Your task to perform on an android device: Show me recent news Image 0: 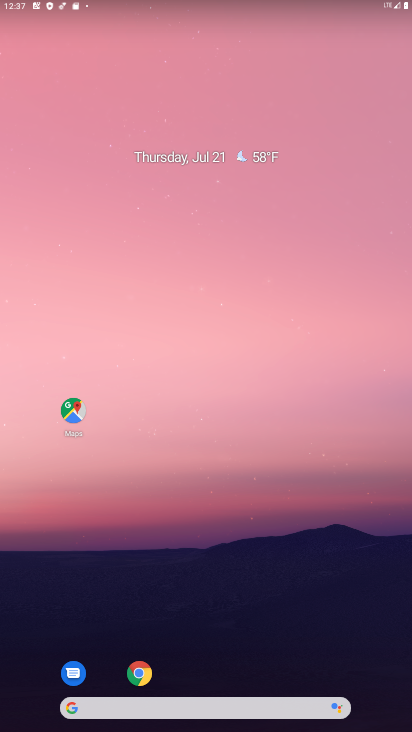
Step 0: drag from (228, 670) to (221, 326)
Your task to perform on an android device: Show me recent news Image 1: 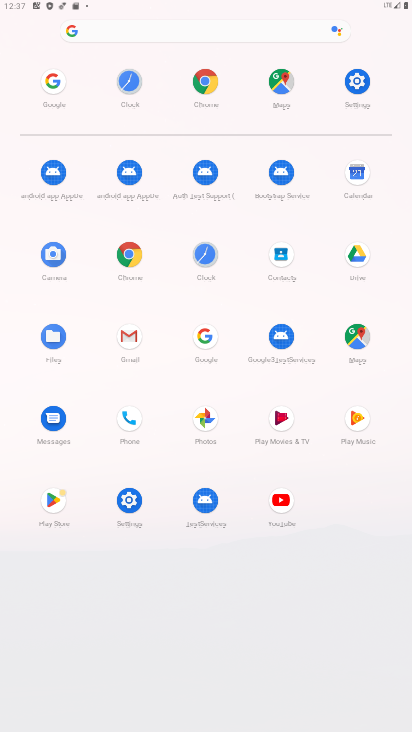
Step 1: click (202, 75)
Your task to perform on an android device: Show me recent news Image 2: 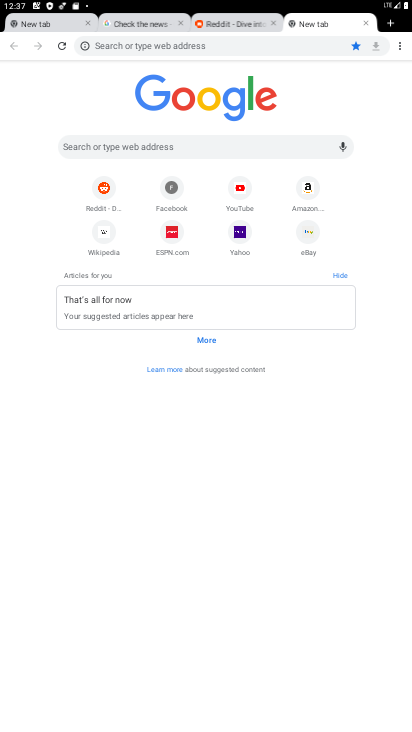
Step 2: click (193, 146)
Your task to perform on an android device: Show me recent news Image 3: 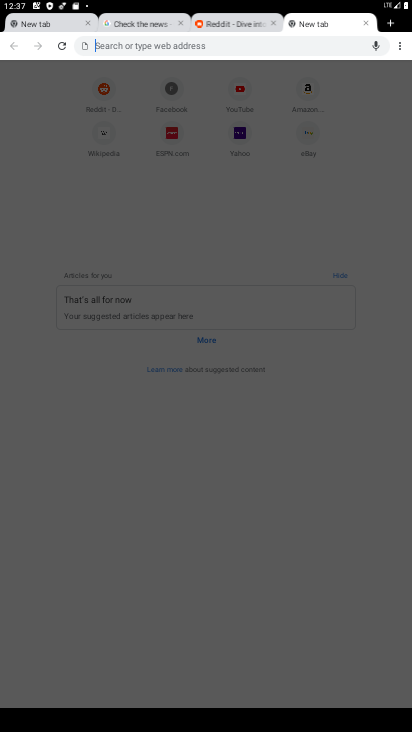
Step 3: type "Show me recent news "
Your task to perform on an android device: Show me recent news Image 4: 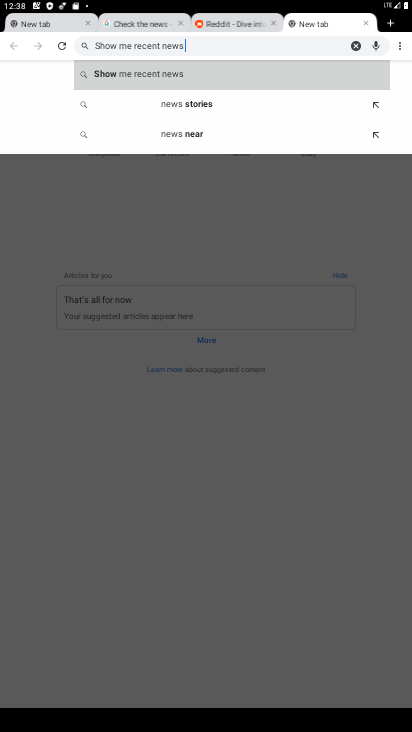
Step 4: click (191, 68)
Your task to perform on an android device: Show me recent news Image 5: 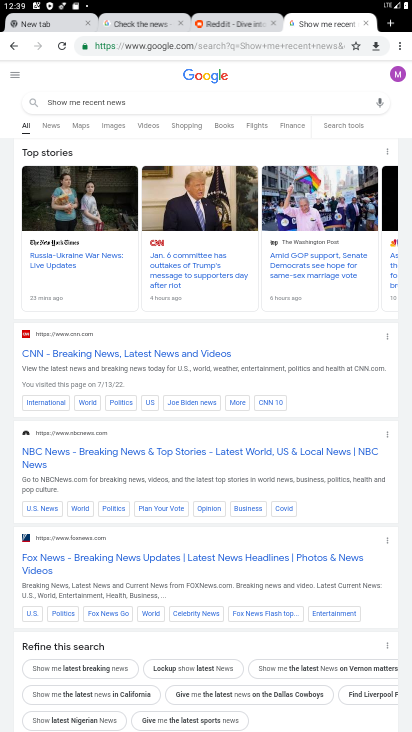
Step 5: task complete